Your task to perform on an android device: change keyboard looks Image 0: 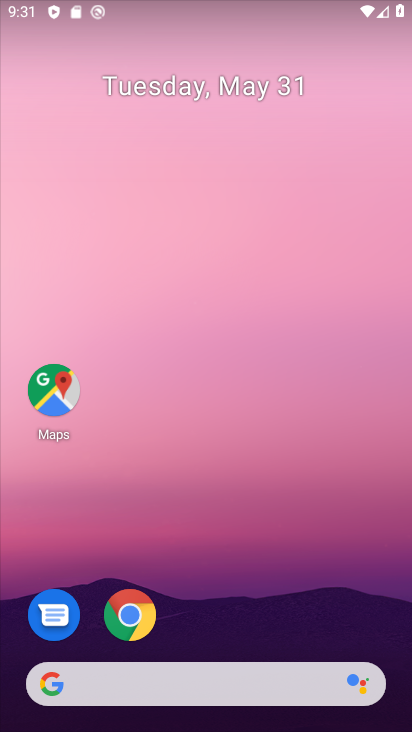
Step 0: drag from (249, 604) to (220, 5)
Your task to perform on an android device: change keyboard looks Image 1: 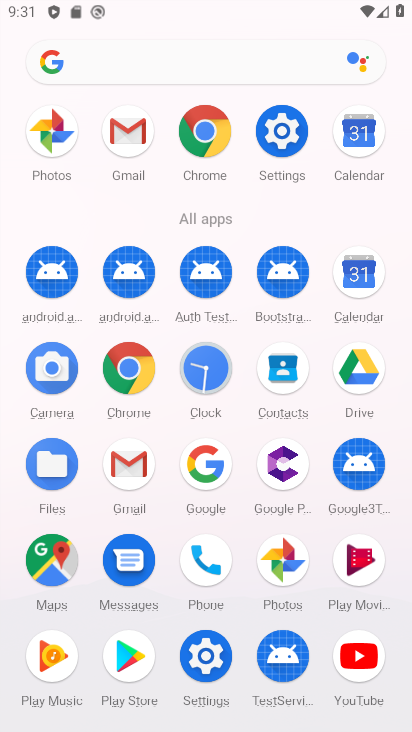
Step 1: click (279, 132)
Your task to perform on an android device: change keyboard looks Image 2: 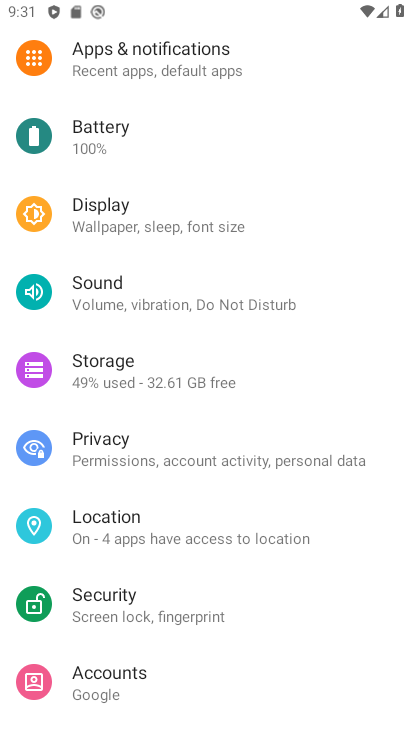
Step 2: drag from (187, 572) to (228, 115)
Your task to perform on an android device: change keyboard looks Image 3: 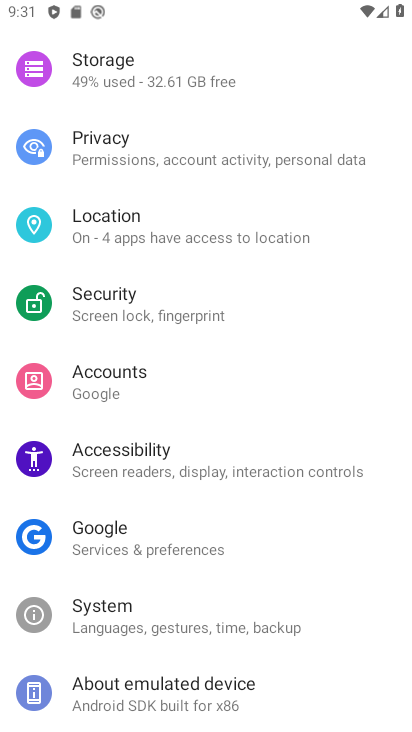
Step 3: click (149, 618)
Your task to perform on an android device: change keyboard looks Image 4: 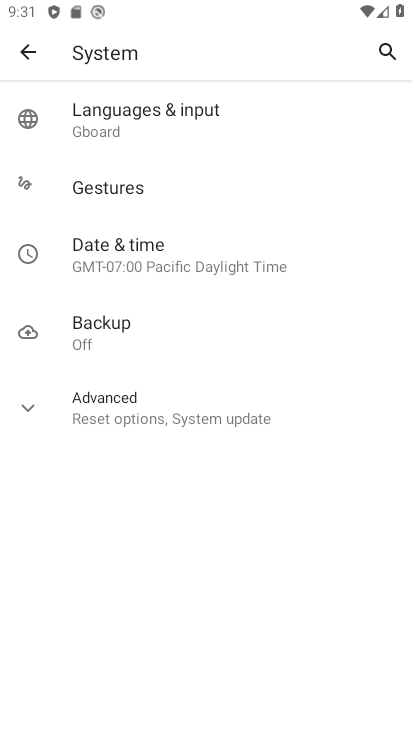
Step 4: click (240, 125)
Your task to perform on an android device: change keyboard looks Image 5: 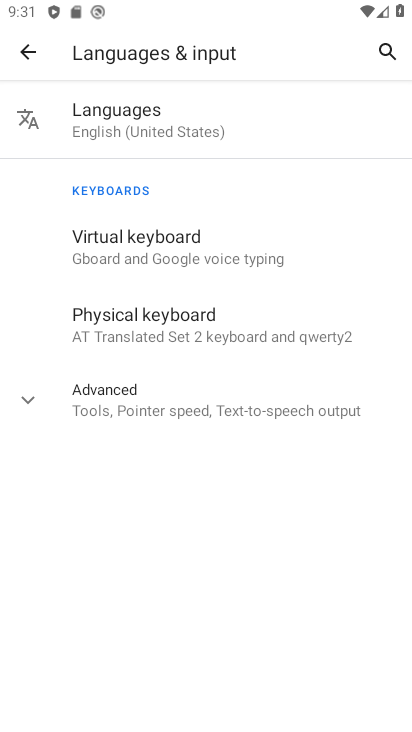
Step 5: click (107, 245)
Your task to perform on an android device: change keyboard looks Image 6: 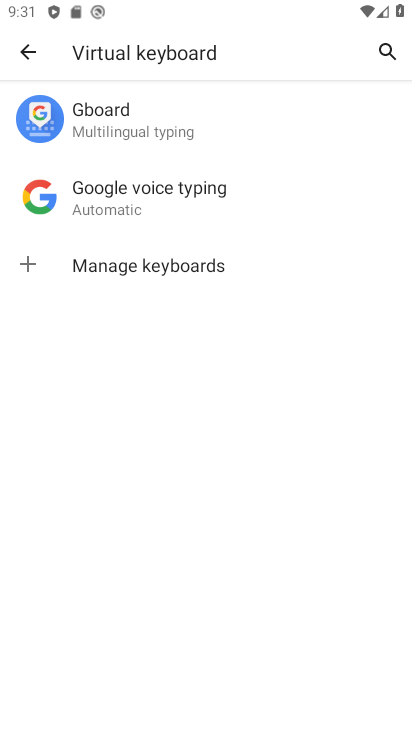
Step 6: click (128, 105)
Your task to perform on an android device: change keyboard looks Image 7: 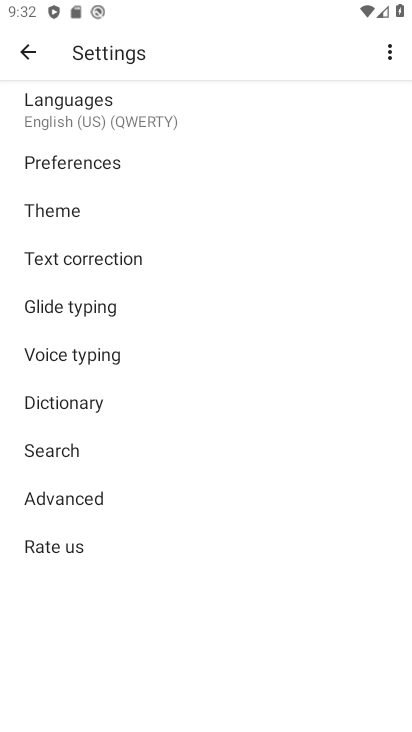
Step 7: click (59, 216)
Your task to perform on an android device: change keyboard looks Image 8: 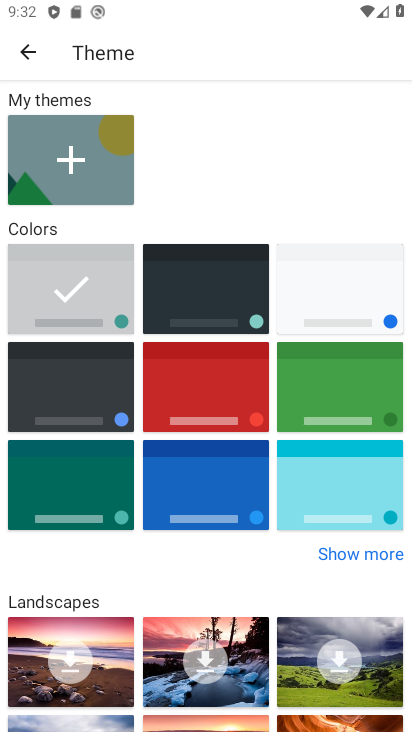
Step 8: click (110, 481)
Your task to perform on an android device: change keyboard looks Image 9: 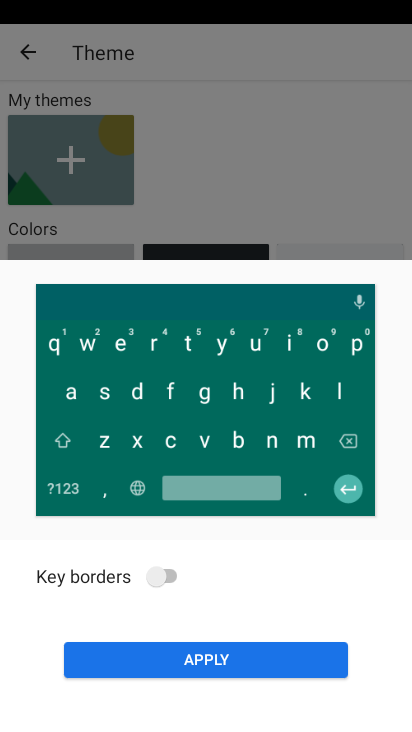
Step 9: click (177, 659)
Your task to perform on an android device: change keyboard looks Image 10: 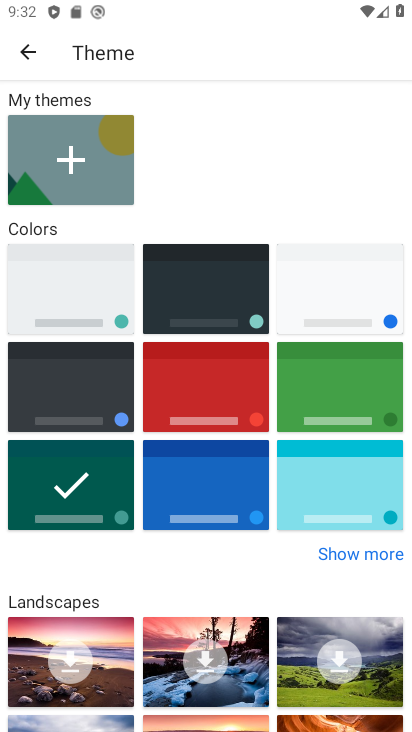
Step 10: task complete